Your task to perform on an android device: Open Yahoo.com Image 0: 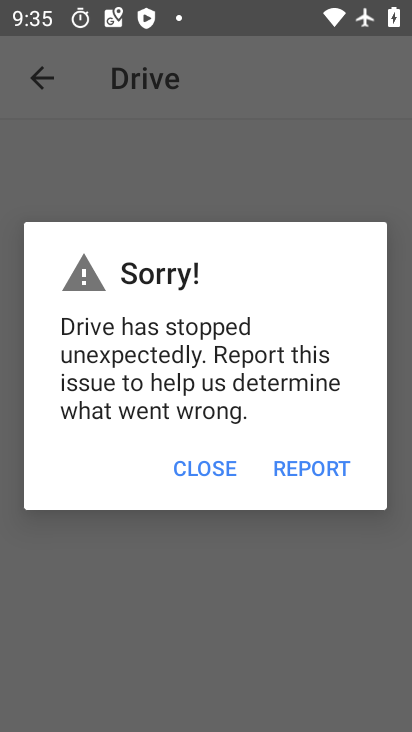
Step 0: press home button
Your task to perform on an android device: Open Yahoo.com Image 1: 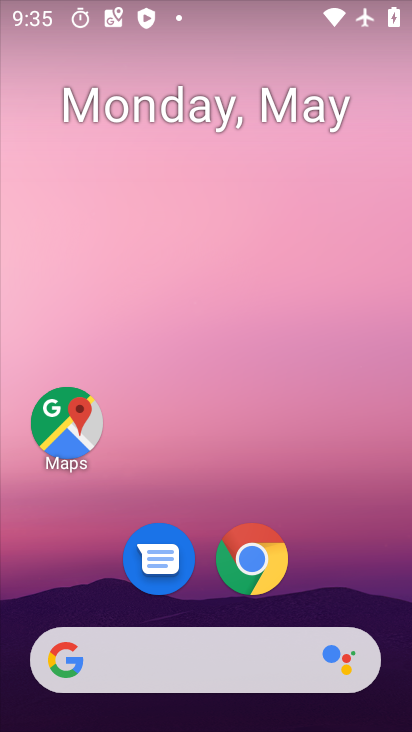
Step 1: click (244, 557)
Your task to perform on an android device: Open Yahoo.com Image 2: 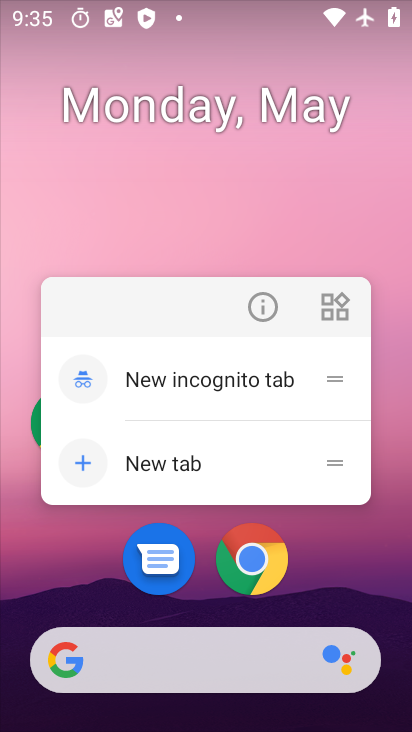
Step 2: click (256, 557)
Your task to perform on an android device: Open Yahoo.com Image 3: 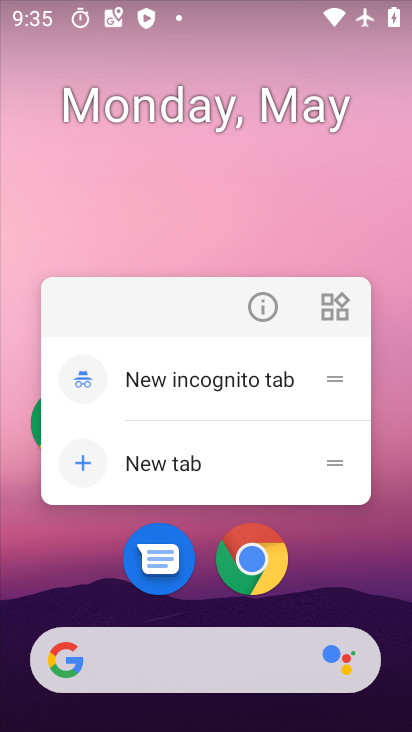
Step 3: click (256, 557)
Your task to perform on an android device: Open Yahoo.com Image 4: 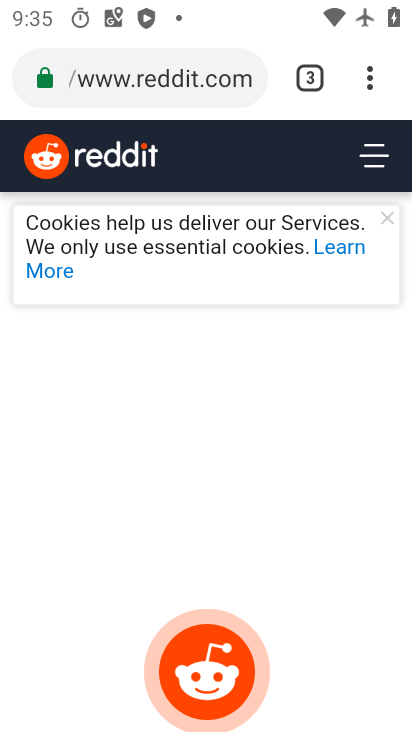
Step 4: click (206, 76)
Your task to perform on an android device: Open Yahoo.com Image 5: 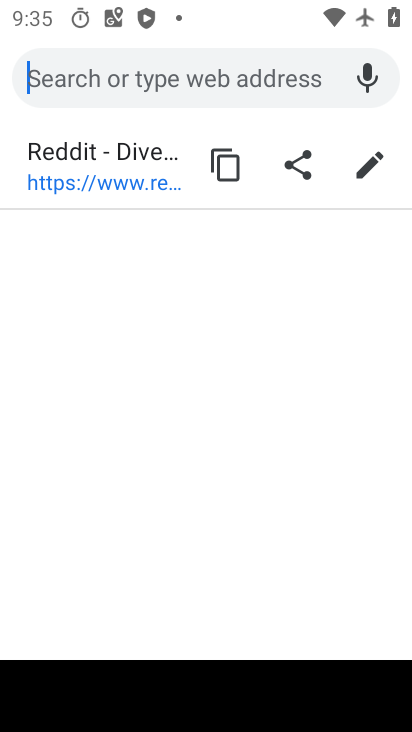
Step 5: type "yahoo.com"
Your task to perform on an android device: Open Yahoo.com Image 6: 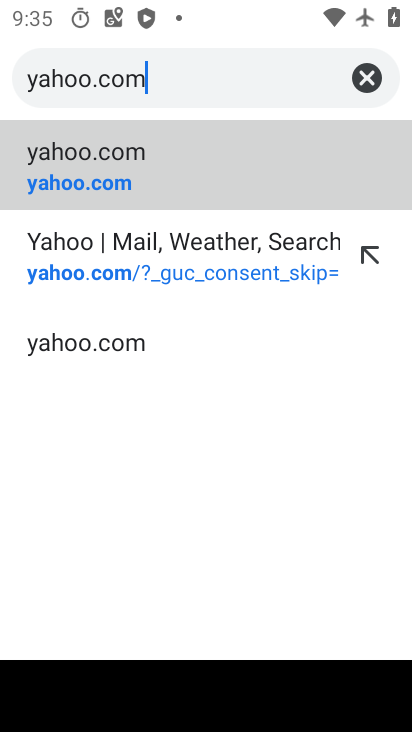
Step 6: click (66, 148)
Your task to perform on an android device: Open Yahoo.com Image 7: 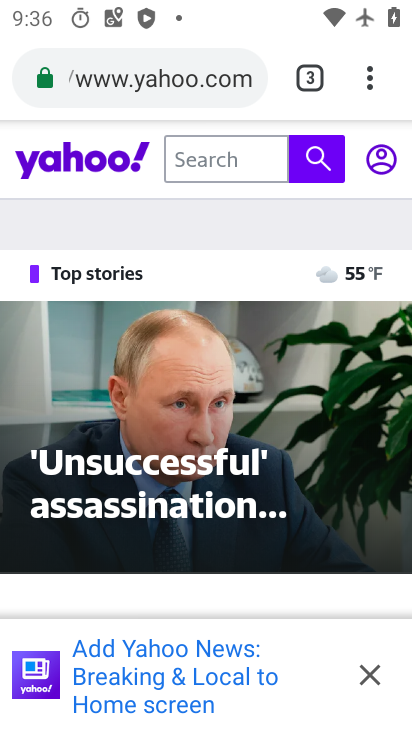
Step 7: task complete